Your task to perform on an android device: Do I have any events this weekend? Image 0: 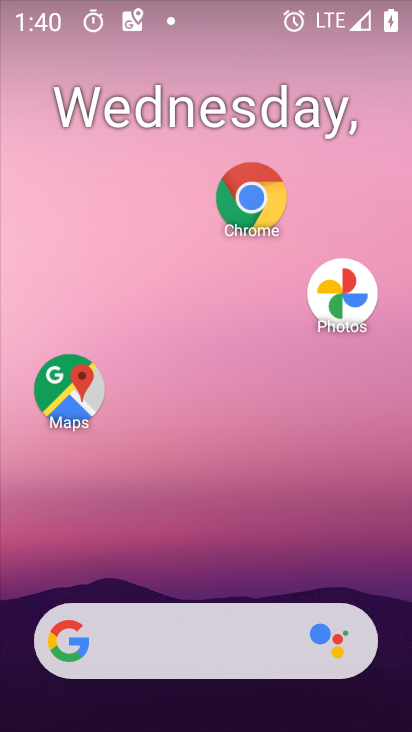
Step 0: drag from (163, 590) to (201, 89)
Your task to perform on an android device: Do I have any events this weekend? Image 1: 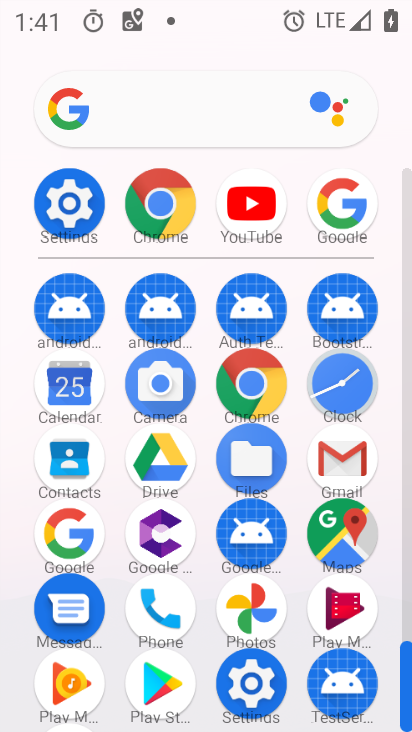
Step 1: click (75, 392)
Your task to perform on an android device: Do I have any events this weekend? Image 2: 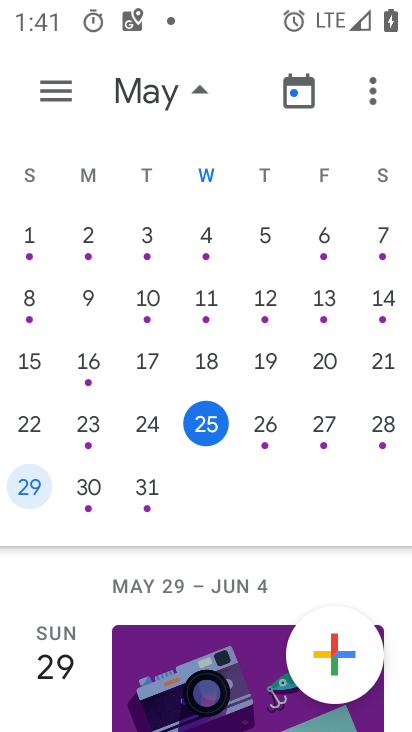
Step 2: click (383, 442)
Your task to perform on an android device: Do I have any events this weekend? Image 3: 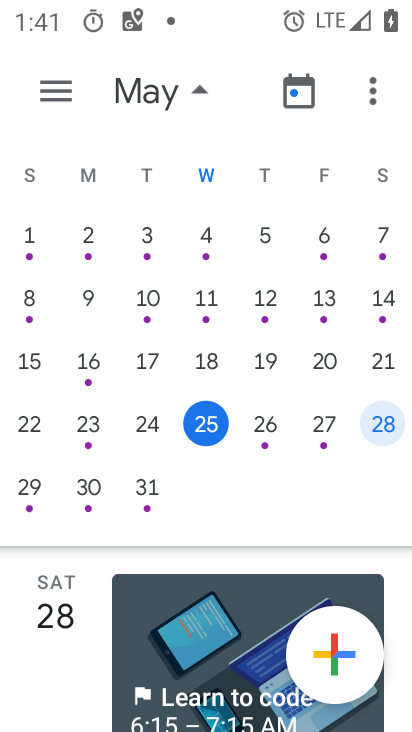
Step 3: task complete